Your task to perform on an android device: Open the stopwatch Image 0: 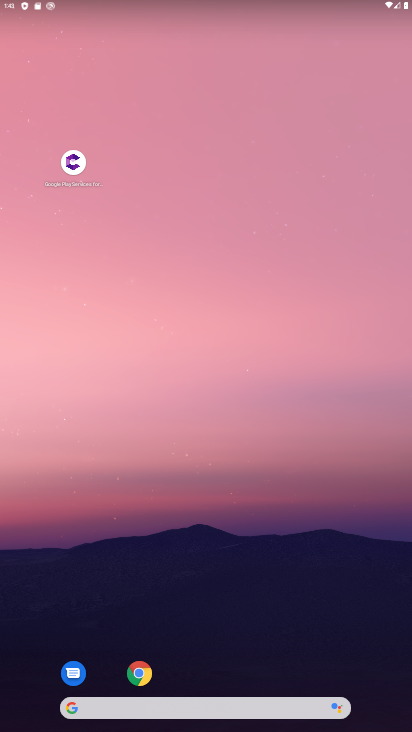
Step 0: drag from (179, 688) to (186, 298)
Your task to perform on an android device: Open the stopwatch Image 1: 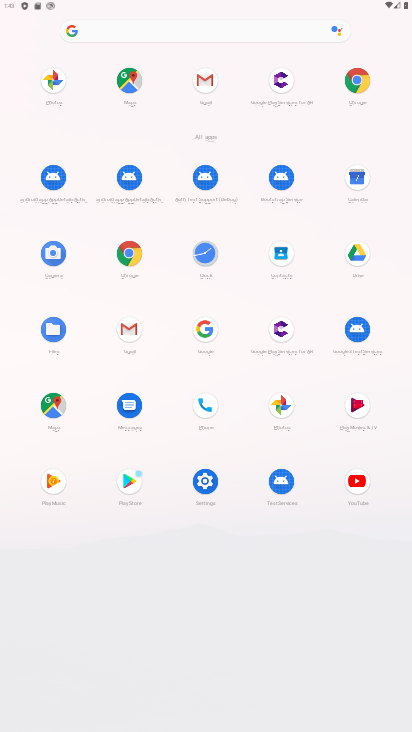
Step 1: click (185, 263)
Your task to perform on an android device: Open the stopwatch Image 2: 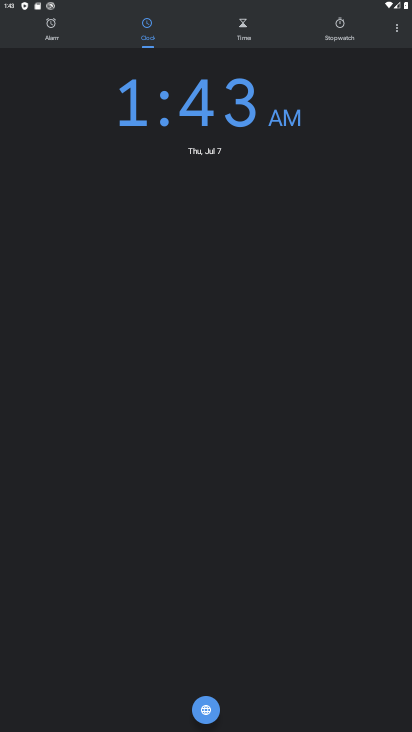
Step 2: click (333, 28)
Your task to perform on an android device: Open the stopwatch Image 3: 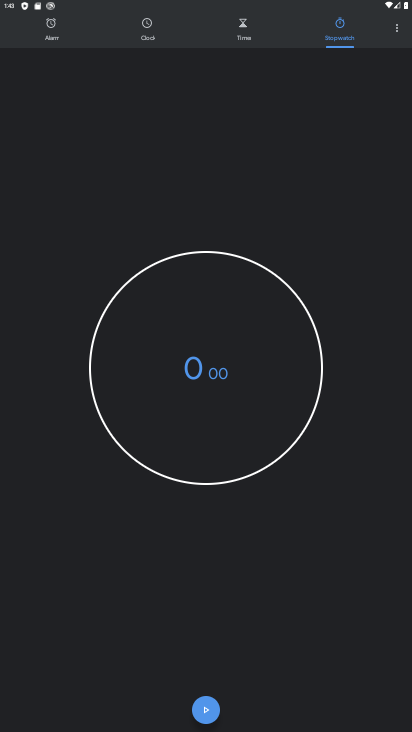
Step 3: click (197, 713)
Your task to perform on an android device: Open the stopwatch Image 4: 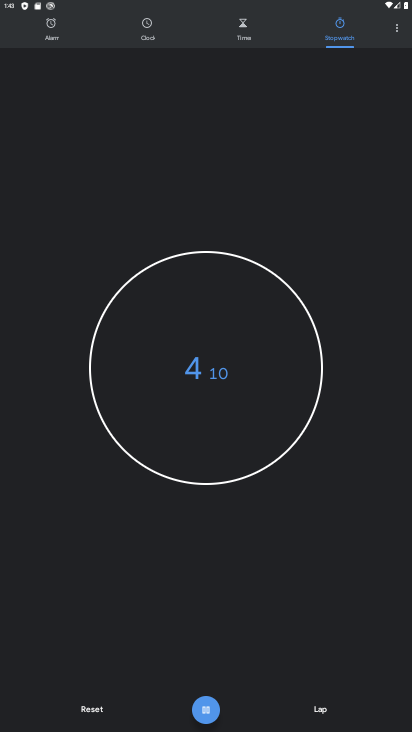
Step 4: task complete